Your task to perform on an android device: change the upload size in google photos Image 0: 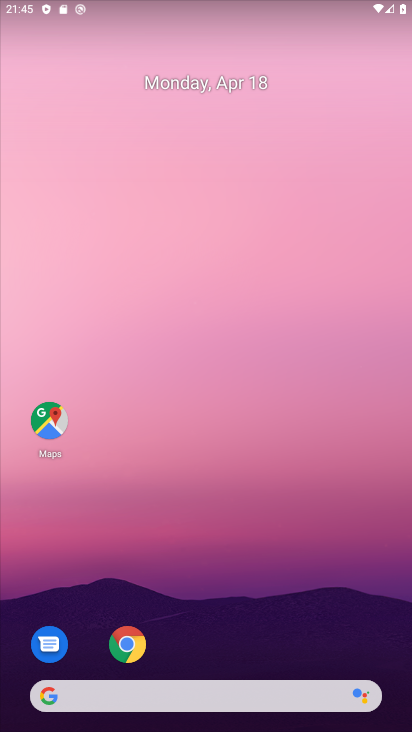
Step 0: drag from (219, 565) to (292, 89)
Your task to perform on an android device: change the upload size in google photos Image 1: 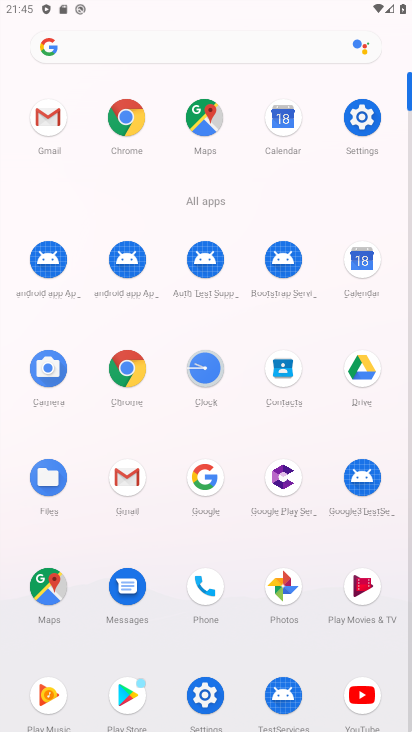
Step 1: click (282, 588)
Your task to perform on an android device: change the upload size in google photos Image 2: 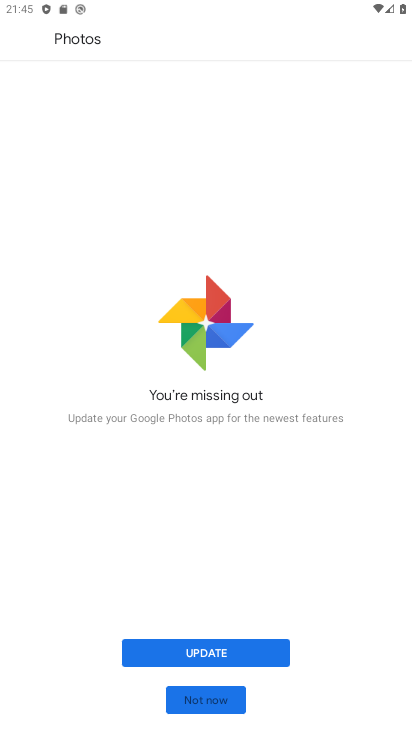
Step 2: click (209, 697)
Your task to perform on an android device: change the upload size in google photos Image 3: 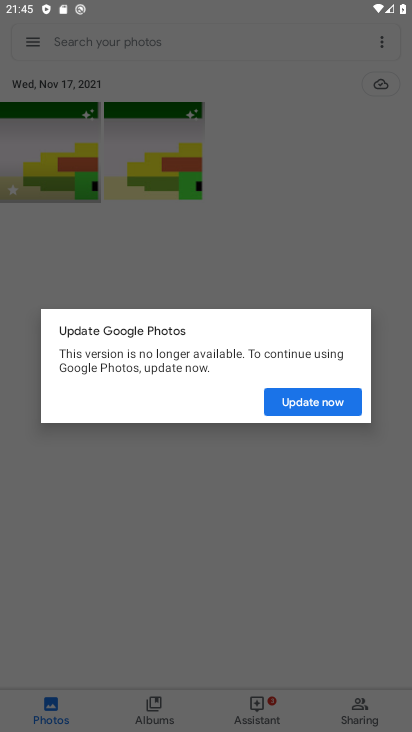
Step 3: click (220, 489)
Your task to perform on an android device: change the upload size in google photos Image 4: 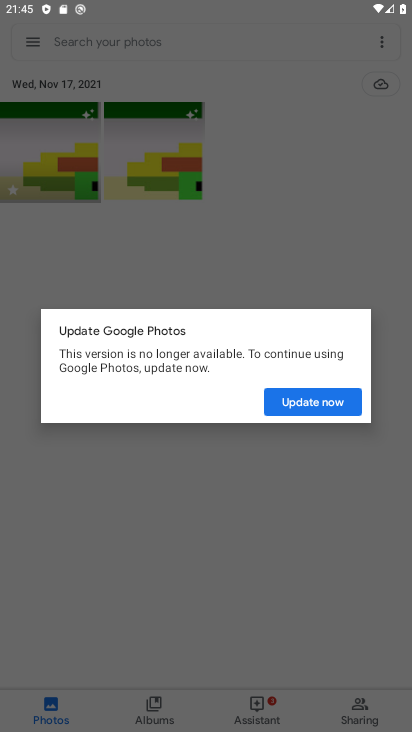
Step 4: click (27, 44)
Your task to perform on an android device: change the upload size in google photos Image 5: 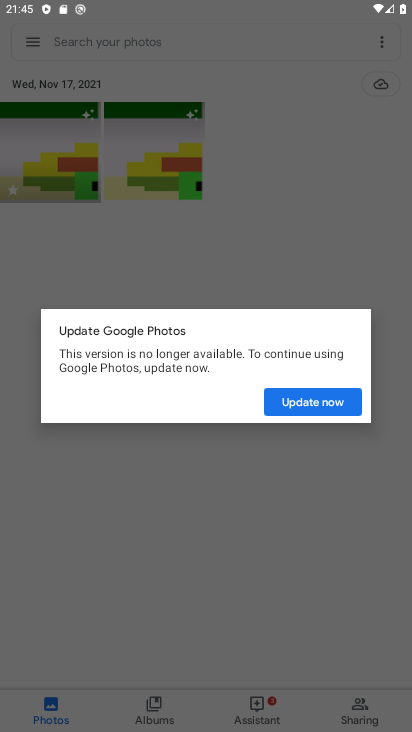
Step 5: click (28, 46)
Your task to perform on an android device: change the upload size in google photos Image 6: 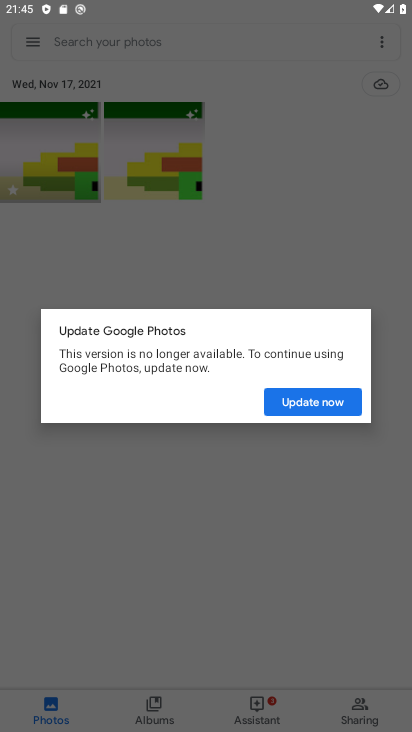
Step 6: click (29, 46)
Your task to perform on an android device: change the upload size in google photos Image 7: 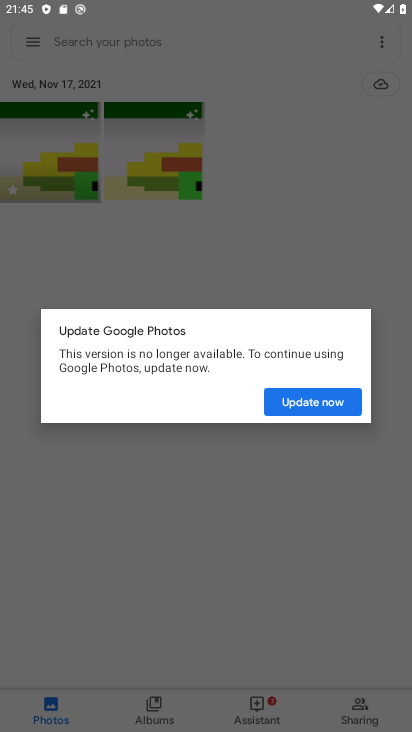
Step 7: click (305, 400)
Your task to perform on an android device: change the upload size in google photos Image 8: 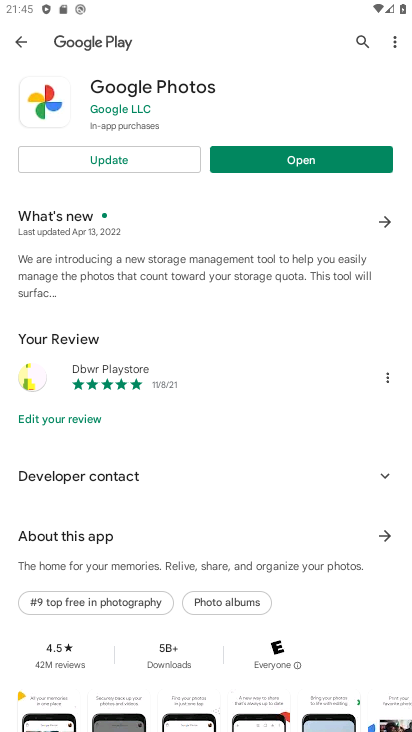
Step 8: click (308, 148)
Your task to perform on an android device: change the upload size in google photos Image 9: 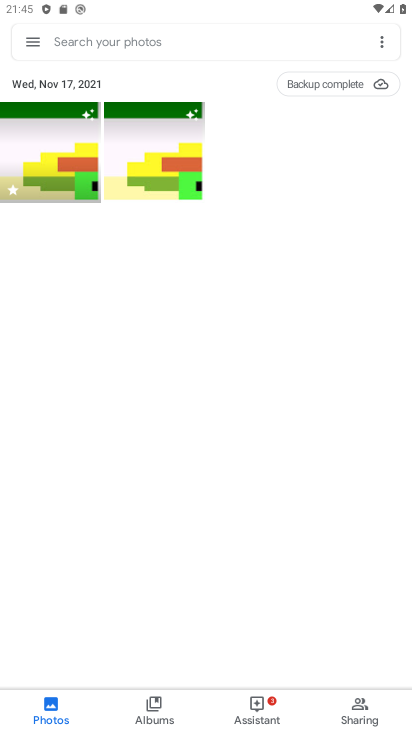
Step 9: click (34, 43)
Your task to perform on an android device: change the upload size in google photos Image 10: 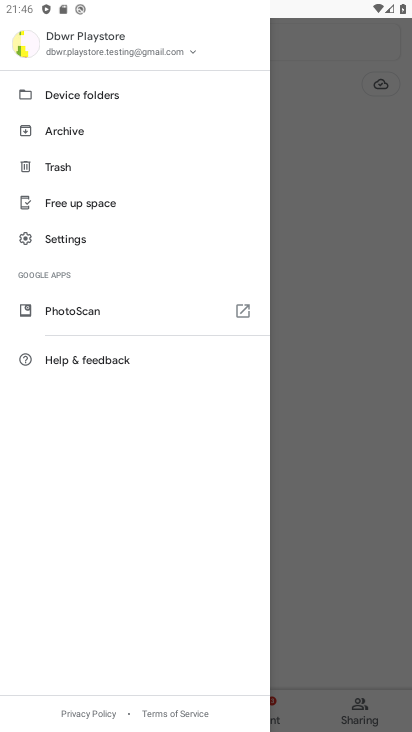
Step 10: click (64, 233)
Your task to perform on an android device: change the upload size in google photos Image 11: 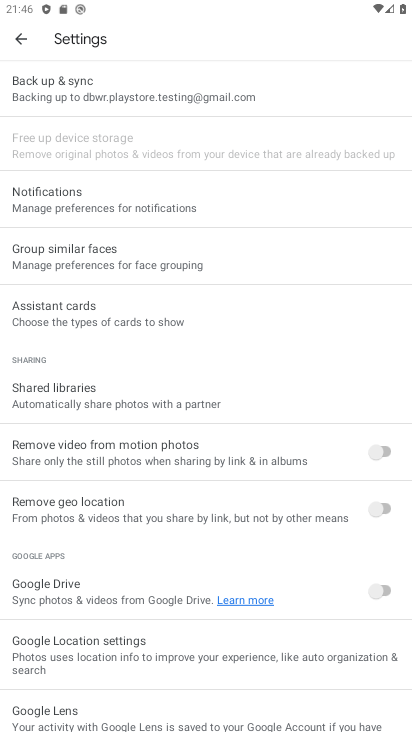
Step 11: click (133, 93)
Your task to perform on an android device: change the upload size in google photos Image 12: 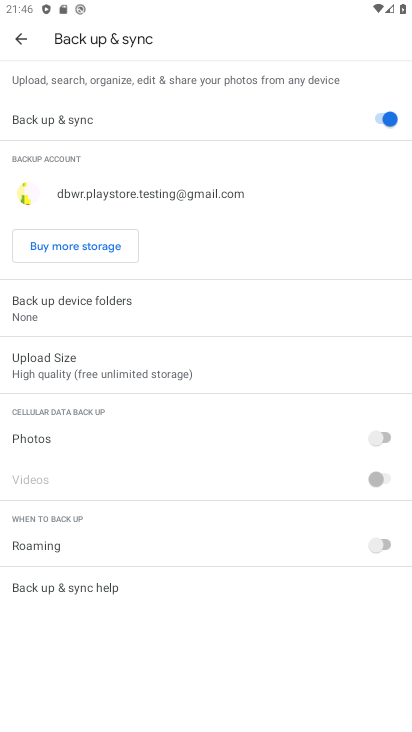
Step 12: click (118, 369)
Your task to perform on an android device: change the upload size in google photos Image 13: 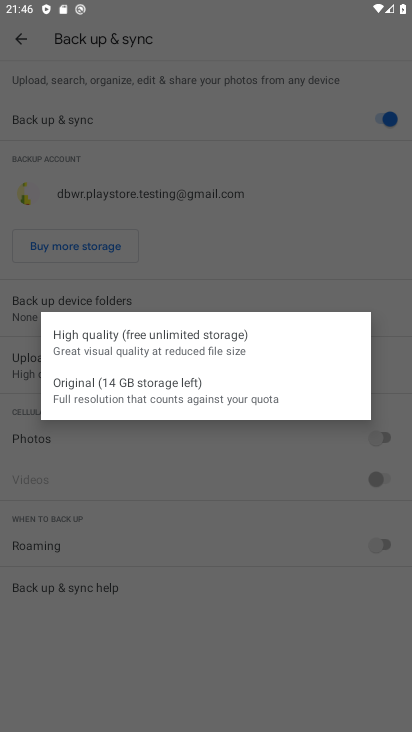
Step 13: click (146, 387)
Your task to perform on an android device: change the upload size in google photos Image 14: 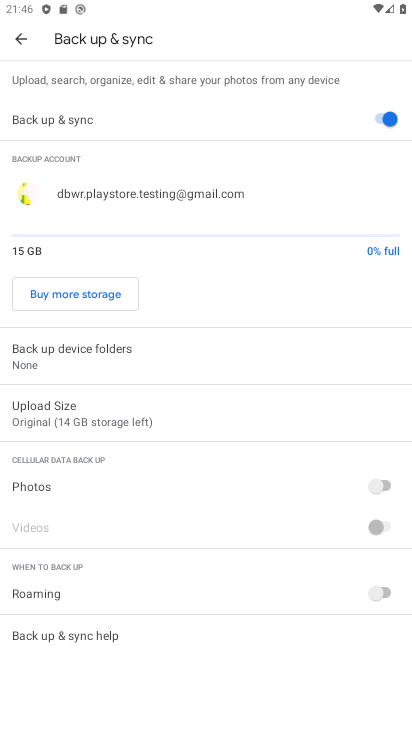
Step 14: task complete